Your task to perform on an android device: Open sound settings Image 0: 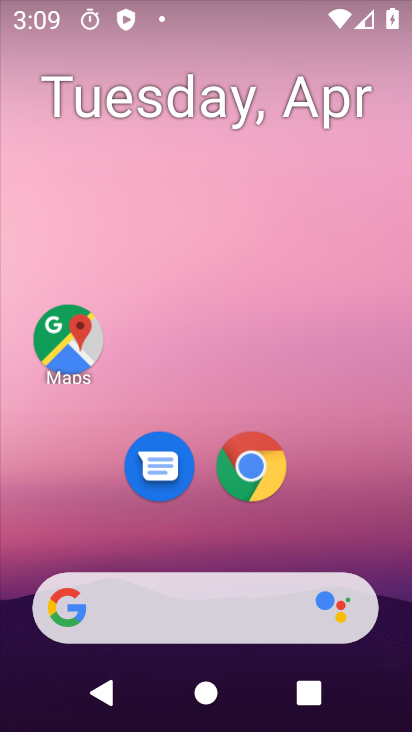
Step 0: drag from (196, 540) to (373, 20)
Your task to perform on an android device: Open sound settings Image 1: 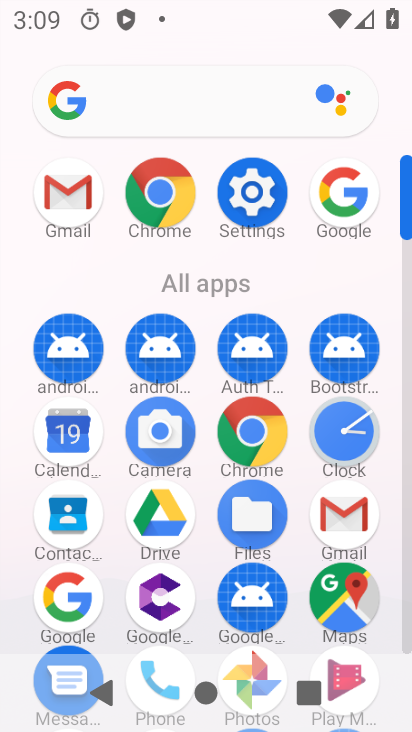
Step 1: click (251, 212)
Your task to perform on an android device: Open sound settings Image 2: 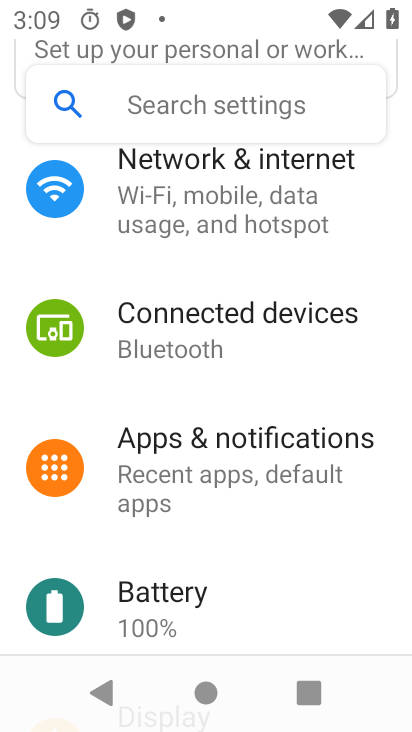
Step 2: drag from (250, 518) to (212, 195)
Your task to perform on an android device: Open sound settings Image 3: 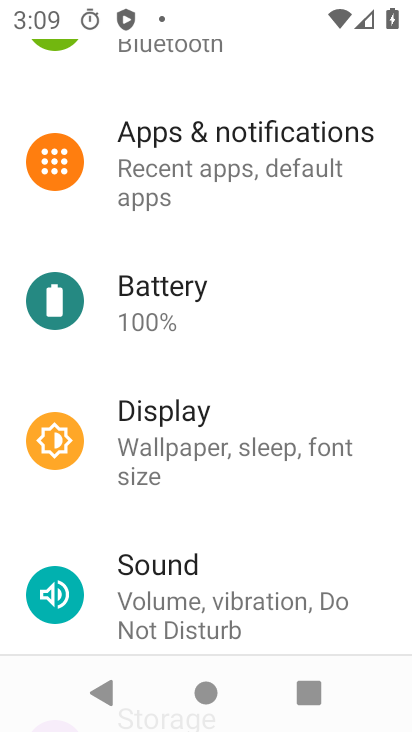
Step 3: click (213, 553)
Your task to perform on an android device: Open sound settings Image 4: 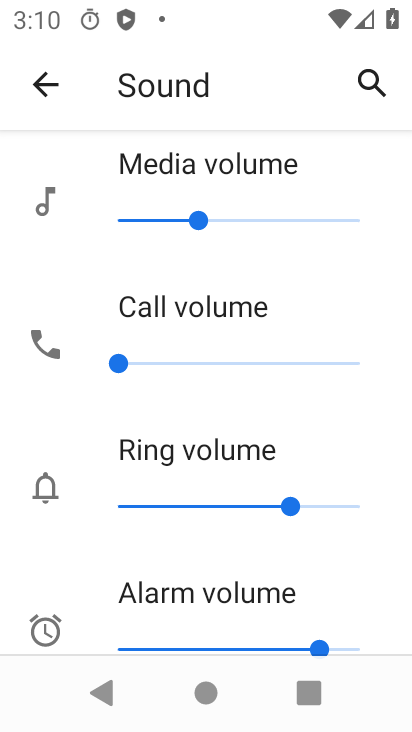
Step 4: task complete